Your task to perform on an android device: turn on location history Image 0: 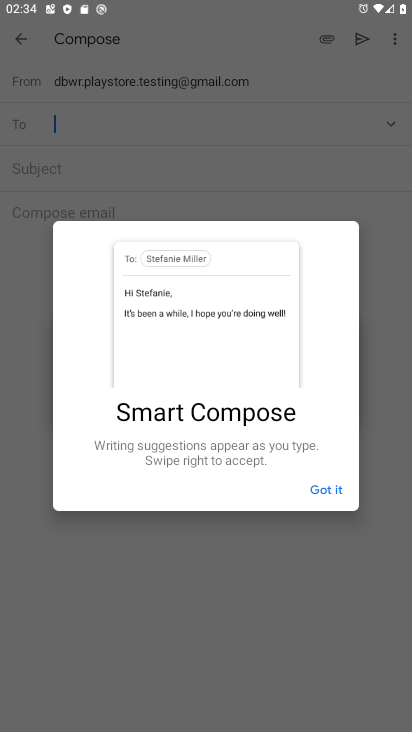
Step 0: press home button
Your task to perform on an android device: turn on location history Image 1: 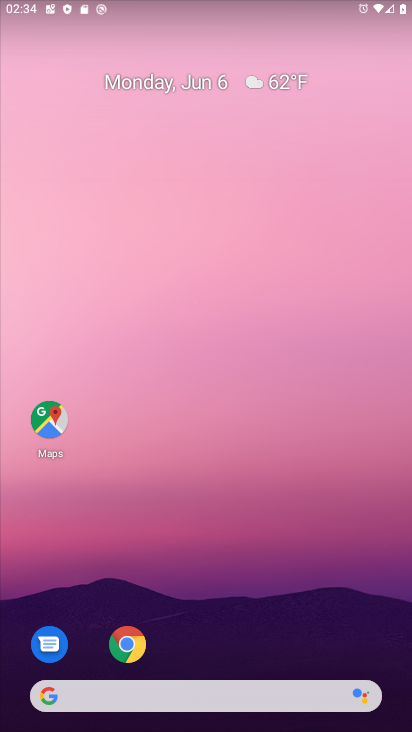
Step 1: drag from (134, 725) to (118, 23)
Your task to perform on an android device: turn on location history Image 2: 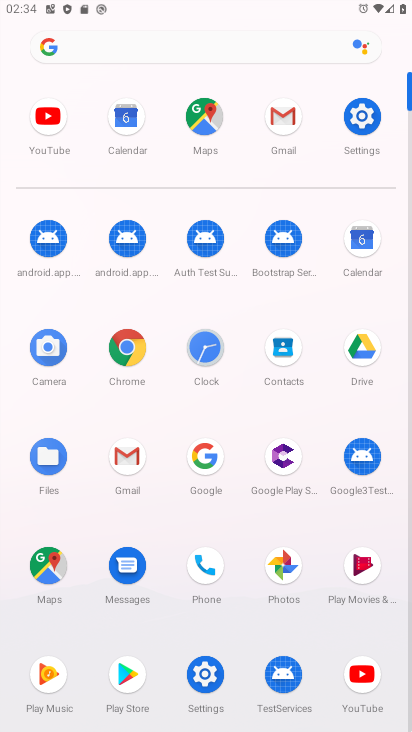
Step 2: click (199, 680)
Your task to perform on an android device: turn on location history Image 3: 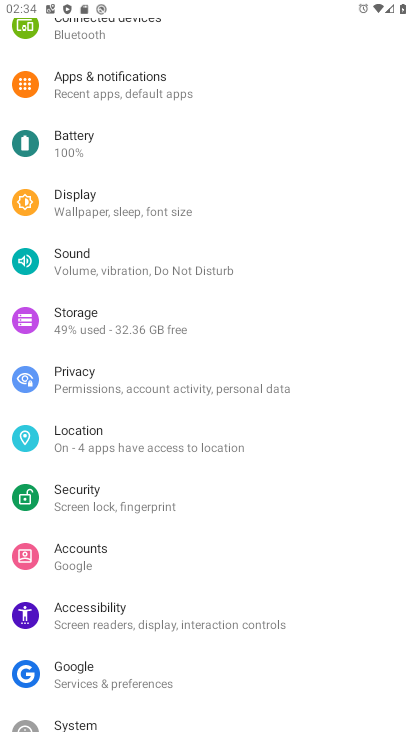
Step 3: click (116, 443)
Your task to perform on an android device: turn on location history Image 4: 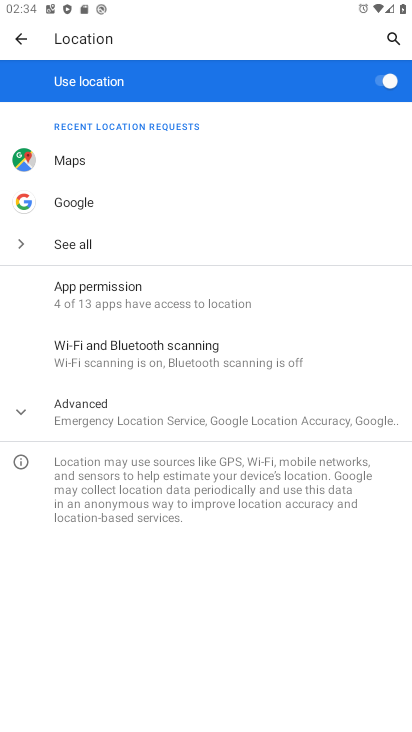
Step 4: click (122, 418)
Your task to perform on an android device: turn on location history Image 5: 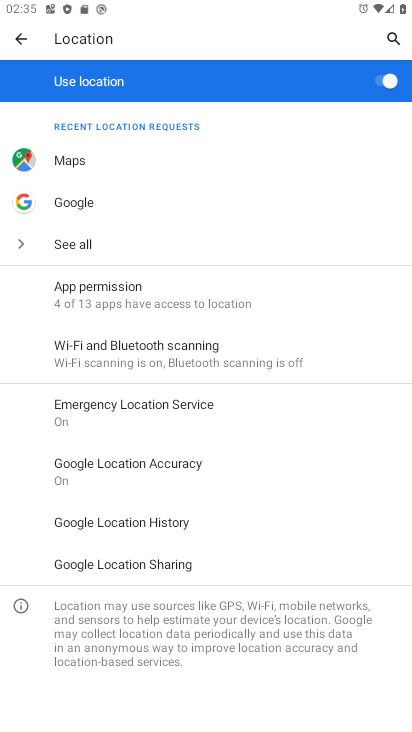
Step 5: click (158, 530)
Your task to perform on an android device: turn on location history Image 6: 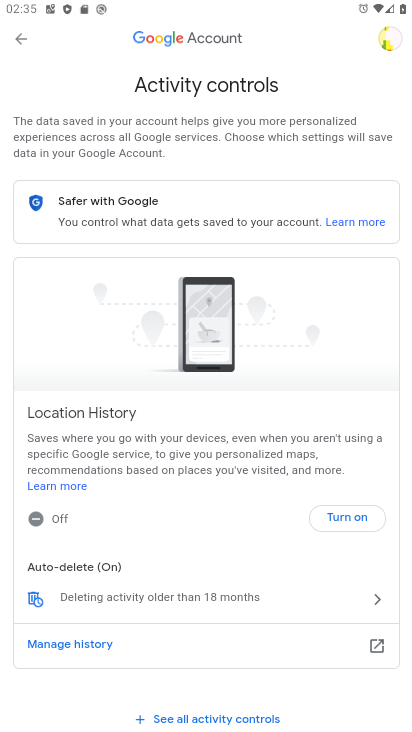
Step 6: click (352, 520)
Your task to perform on an android device: turn on location history Image 7: 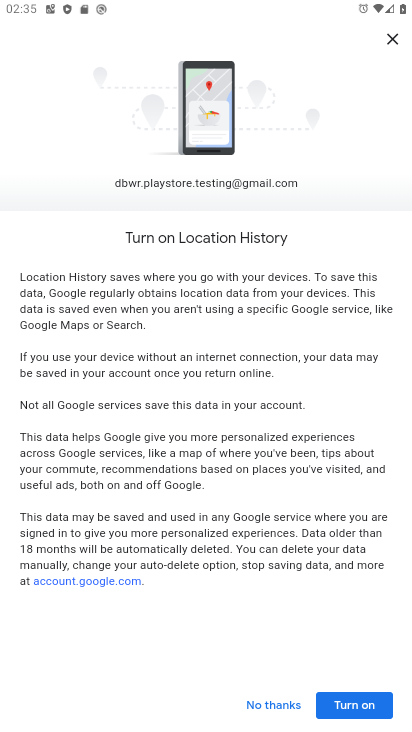
Step 7: click (351, 718)
Your task to perform on an android device: turn on location history Image 8: 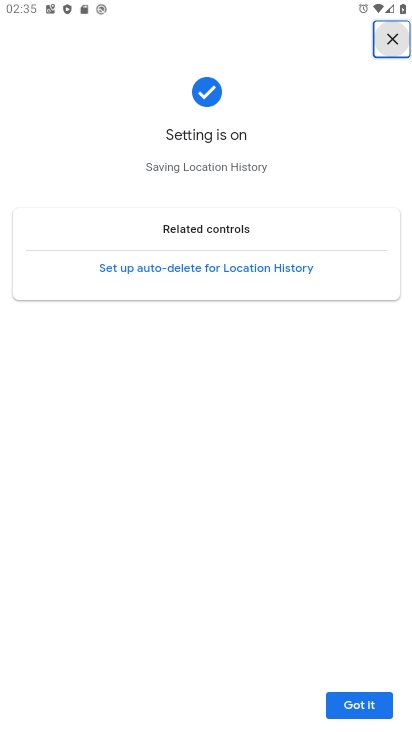
Step 8: click (368, 707)
Your task to perform on an android device: turn on location history Image 9: 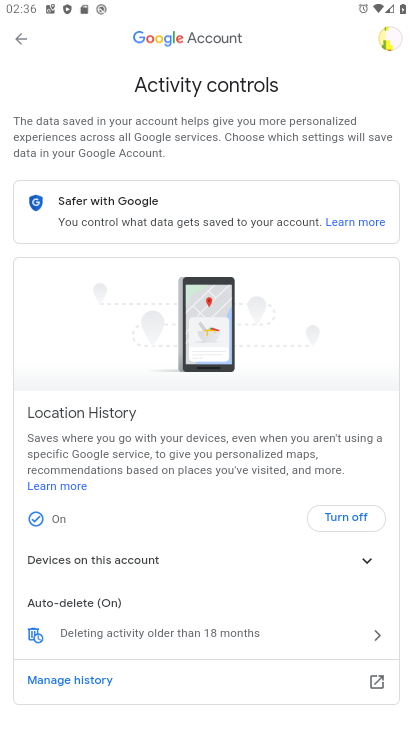
Step 9: task complete